Your task to perform on an android device: turn on priority inbox in the gmail app Image 0: 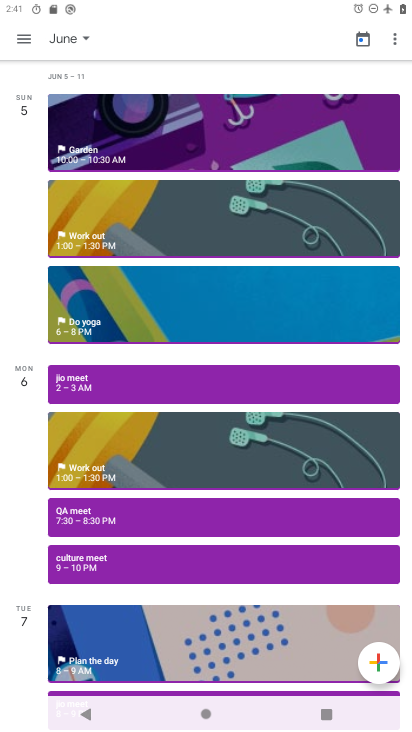
Step 0: press home button
Your task to perform on an android device: turn on priority inbox in the gmail app Image 1: 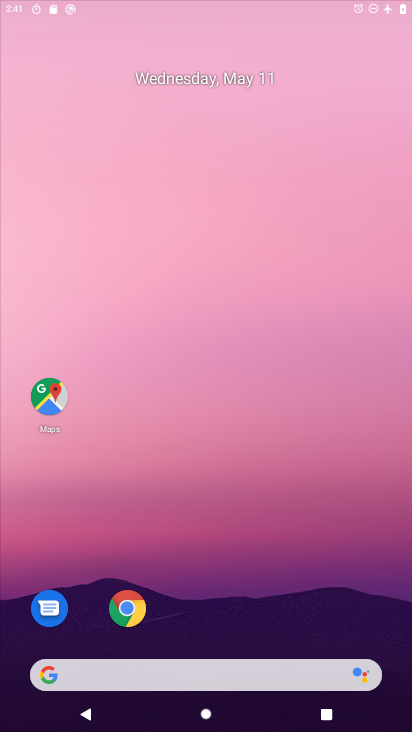
Step 1: drag from (236, 619) to (318, 99)
Your task to perform on an android device: turn on priority inbox in the gmail app Image 2: 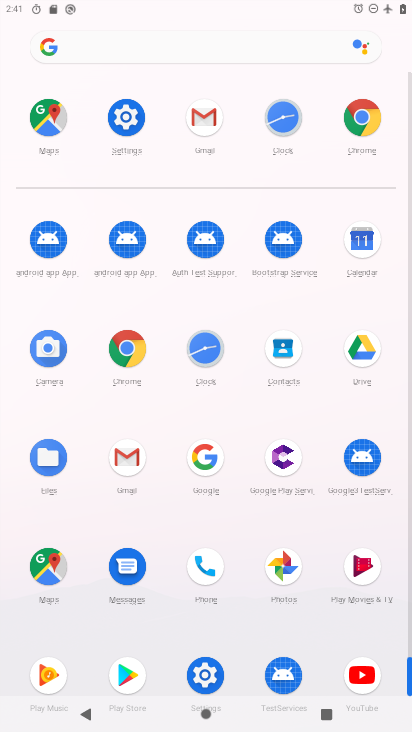
Step 2: click (131, 469)
Your task to perform on an android device: turn on priority inbox in the gmail app Image 3: 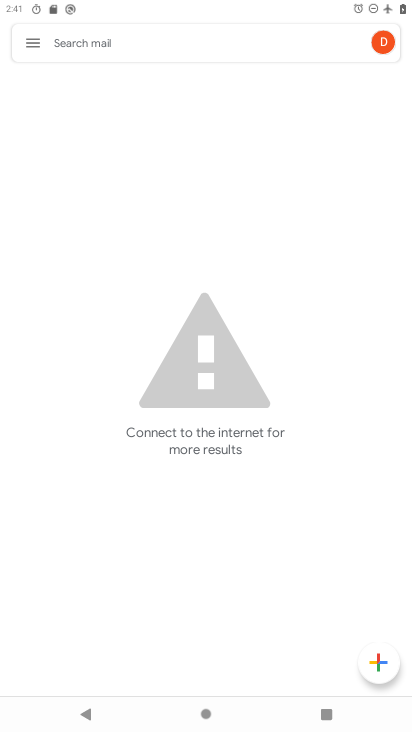
Step 3: click (36, 34)
Your task to perform on an android device: turn on priority inbox in the gmail app Image 4: 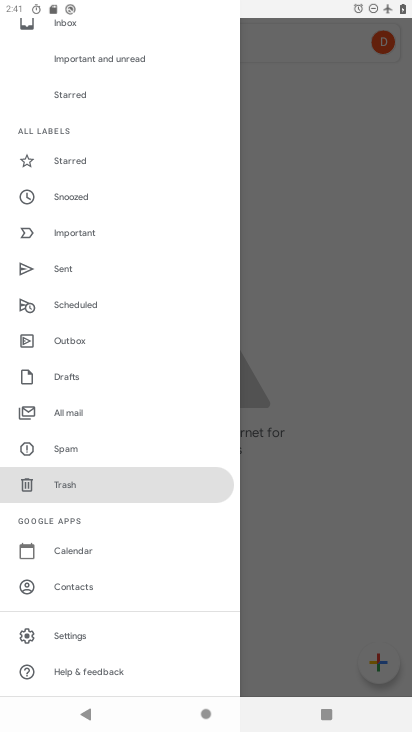
Step 4: click (71, 644)
Your task to perform on an android device: turn on priority inbox in the gmail app Image 5: 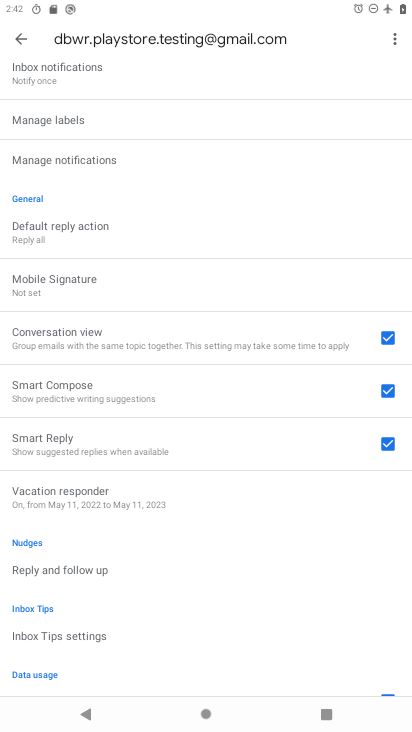
Step 5: drag from (98, 189) to (79, 567)
Your task to perform on an android device: turn on priority inbox in the gmail app Image 6: 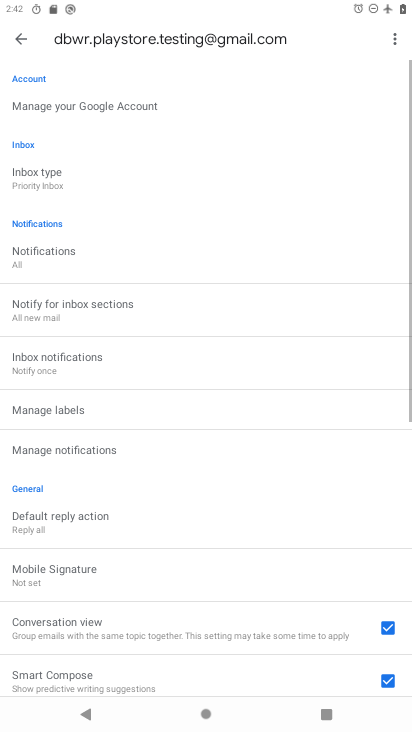
Step 6: click (85, 179)
Your task to perform on an android device: turn on priority inbox in the gmail app Image 7: 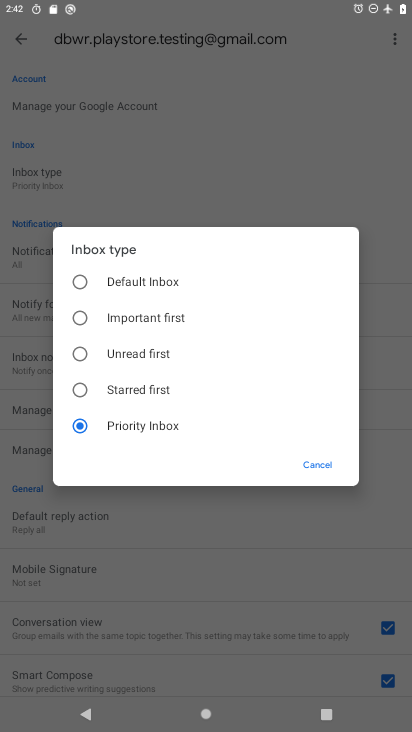
Step 7: task complete